Your task to perform on an android device: open device folders in google photos Image 0: 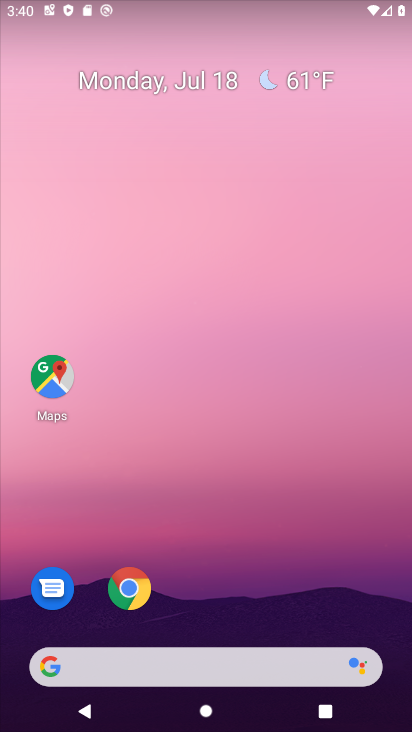
Step 0: drag from (260, 605) to (249, 233)
Your task to perform on an android device: open device folders in google photos Image 1: 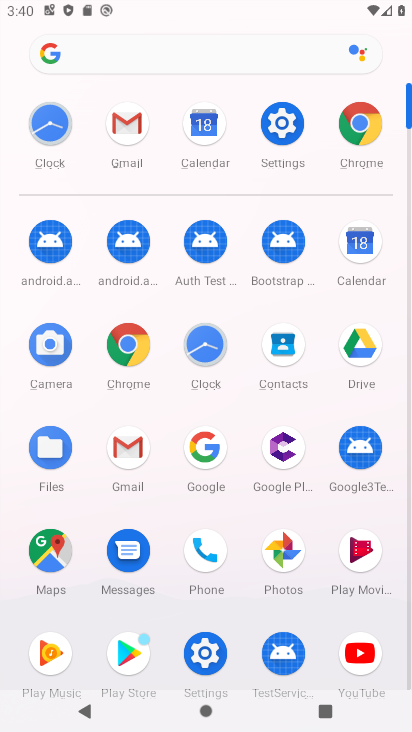
Step 1: click (276, 544)
Your task to perform on an android device: open device folders in google photos Image 2: 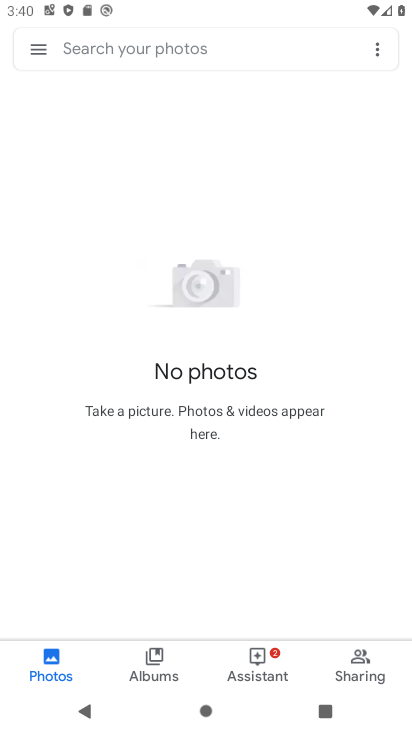
Step 2: click (213, 606)
Your task to perform on an android device: open device folders in google photos Image 3: 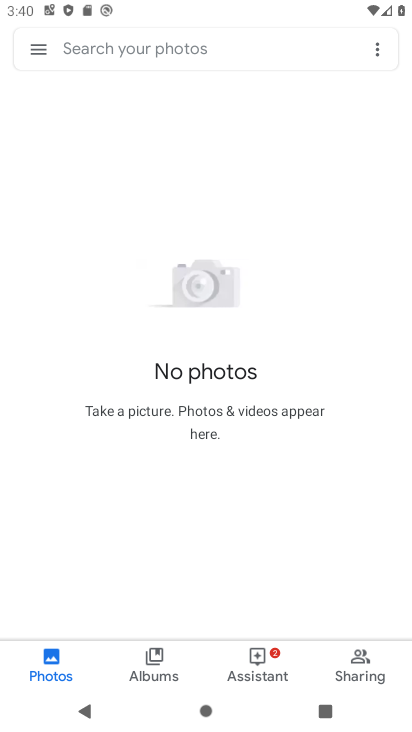
Step 3: click (38, 54)
Your task to perform on an android device: open device folders in google photos Image 4: 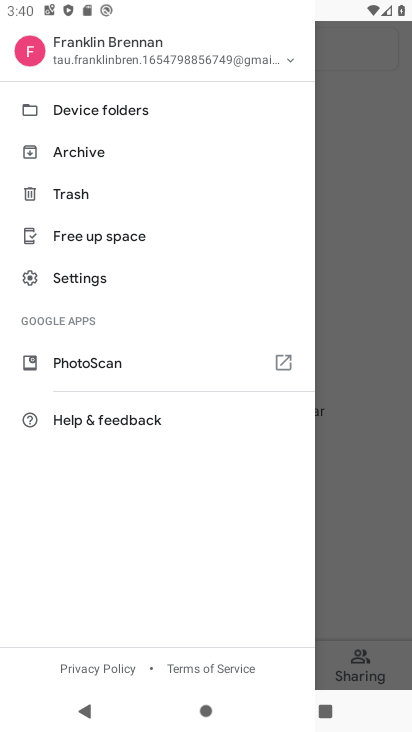
Step 4: click (84, 116)
Your task to perform on an android device: open device folders in google photos Image 5: 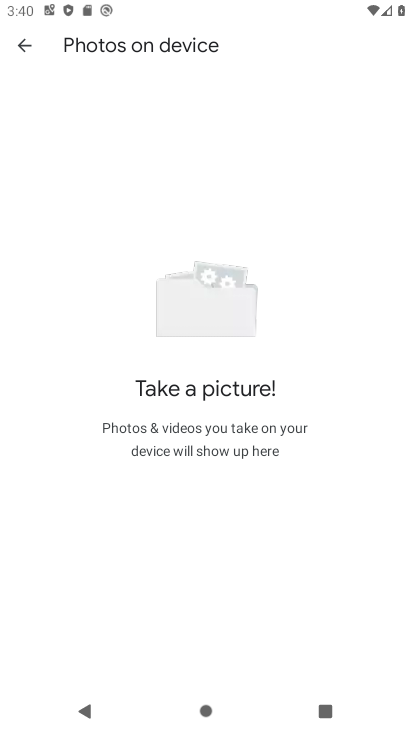
Step 5: task complete